Your task to perform on an android device: Go to accessibility settings Image 0: 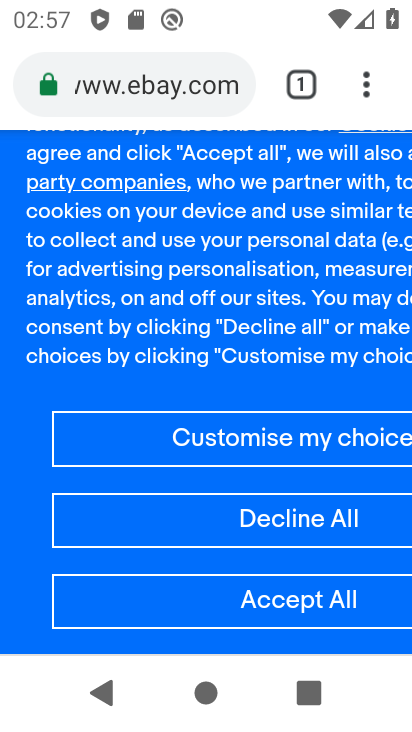
Step 0: press home button
Your task to perform on an android device: Go to accessibility settings Image 1: 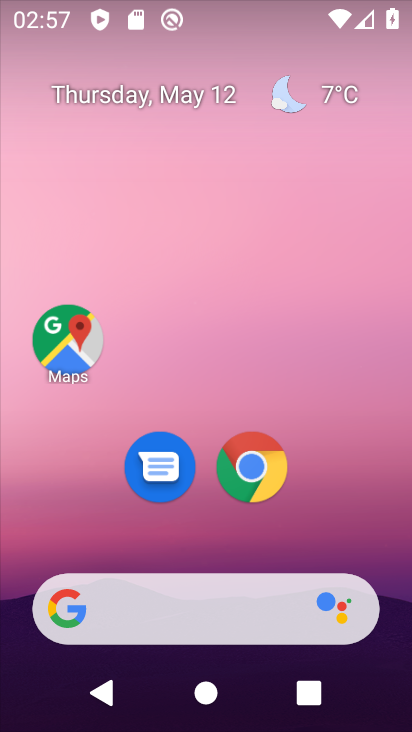
Step 1: drag from (386, 545) to (345, 117)
Your task to perform on an android device: Go to accessibility settings Image 2: 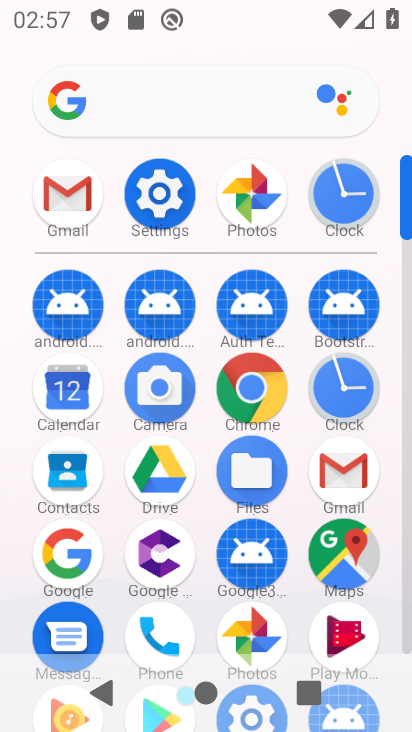
Step 2: click (150, 203)
Your task to perform on an android device: Go to accessibility settings Image 3: 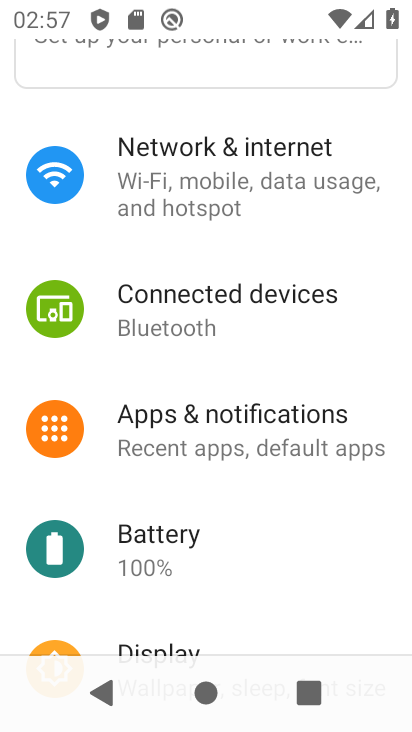
Step 3: drag from (192, 536) to (197, 183)
Your task to perform on an android device: Go to accessibility settings Image 4: 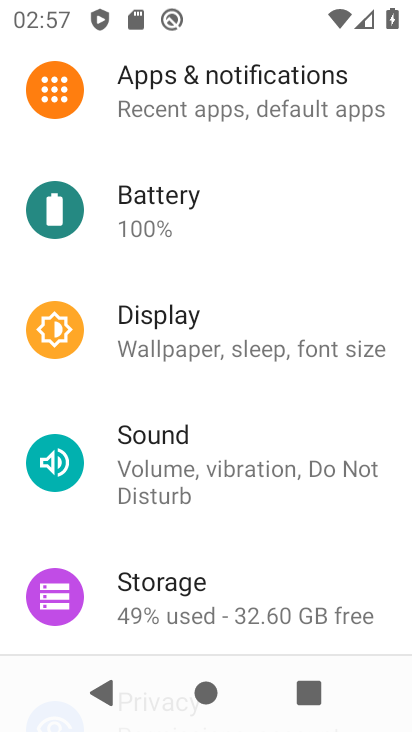
Step 4: drag from (246, 567) to (232, 256)
Your task to perform on an android device: Go to accessibility settings Image 5: 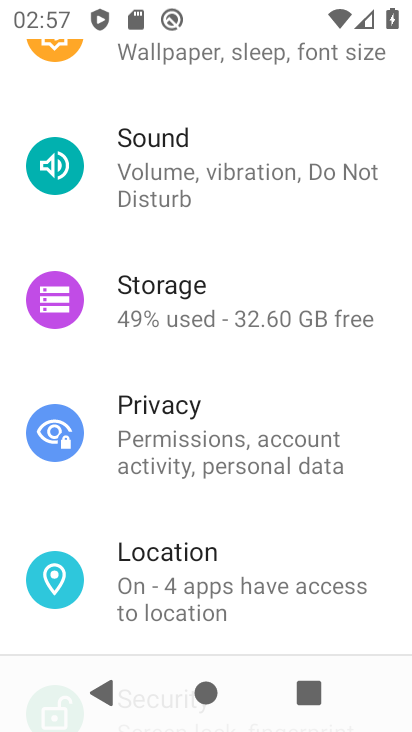
Step 5: drag from (226, 553) to (230, 188)
Your task to perform on an android device: Go to accessibility settings Image 6: 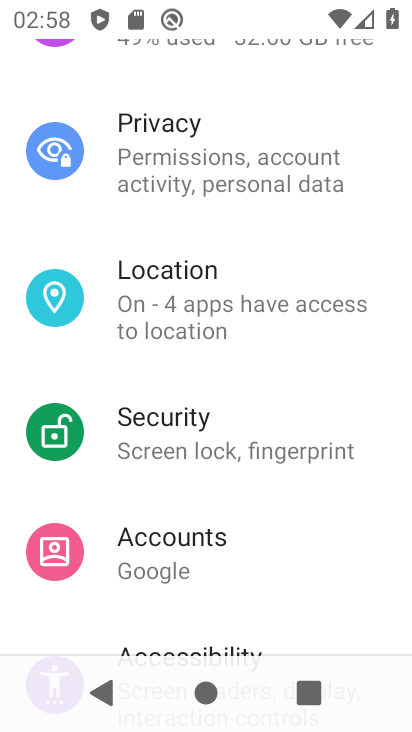
Step 6: drag from (220, 527) to (220, 118)
Your task to perform on an android device: Go to accessibility settings Image 7: 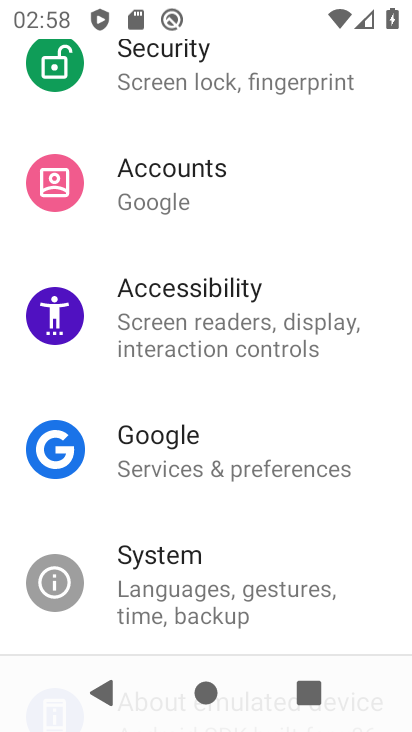
Step 7: click (203, 294)
Your task to perform on an android device: Go to accessibility settings Image 8: 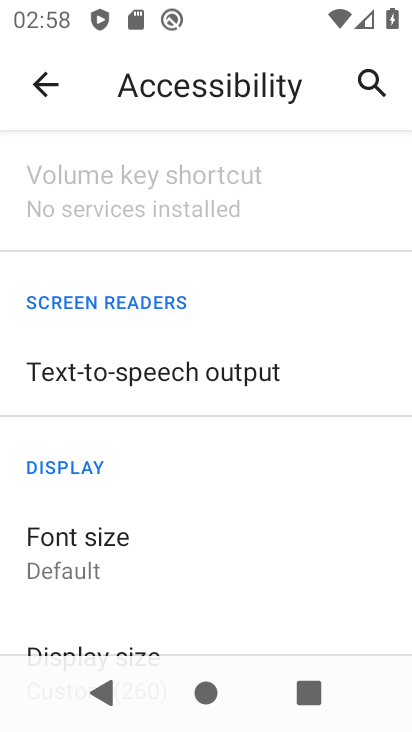
Step 8: task complete